Your task to perform on an android device: change the clock display to digital Image 0: 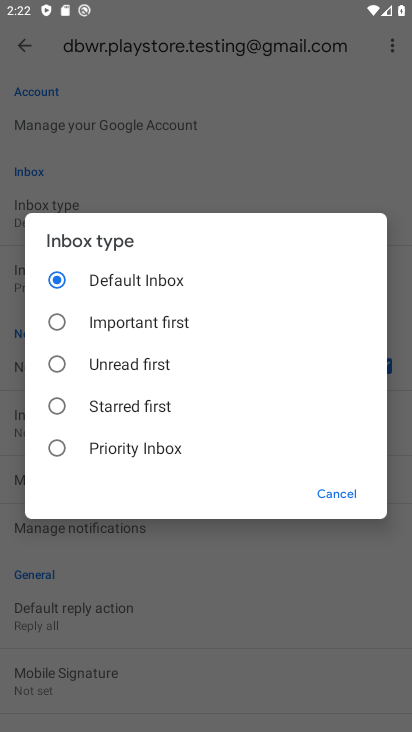
Step 0: press home button
Your task to perform on an android device: change the clock display to digital Image 1: 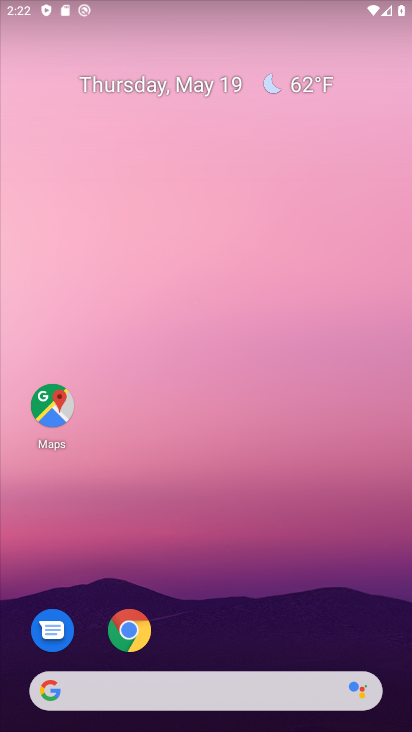
Step 1: drag from (387, 635) to (349, 144)
Your task to perform on an android device: change the clock display to digital Image 2: 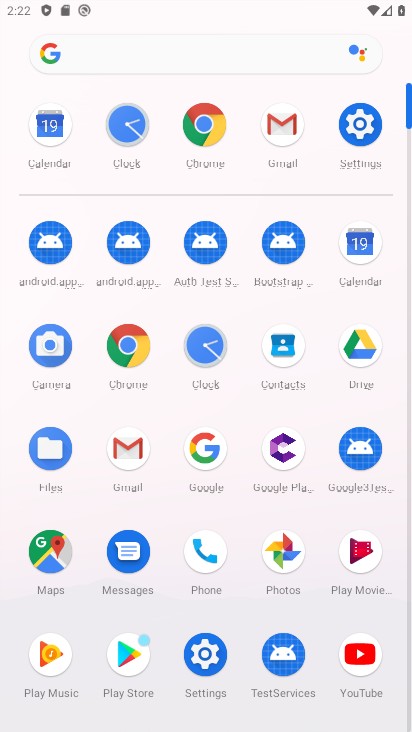
Step 2: click (216, 342)
Your task to perform on an android device: change the clock display to digital Image 3: 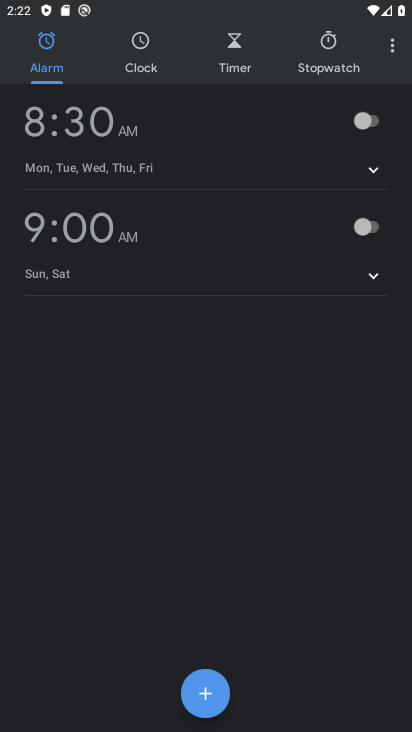
Step 3: task complete